Your task to perform on an android device: Turn off the flashlight Image 0: 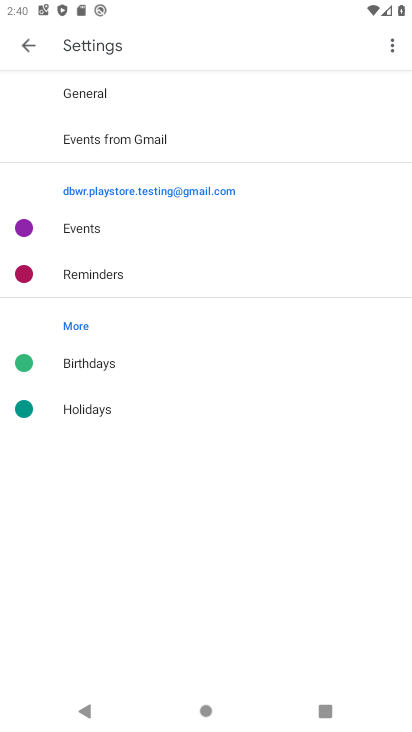
Step 0: press home button
Your task to perform on an android device: Turn off the flashlight Image 1: 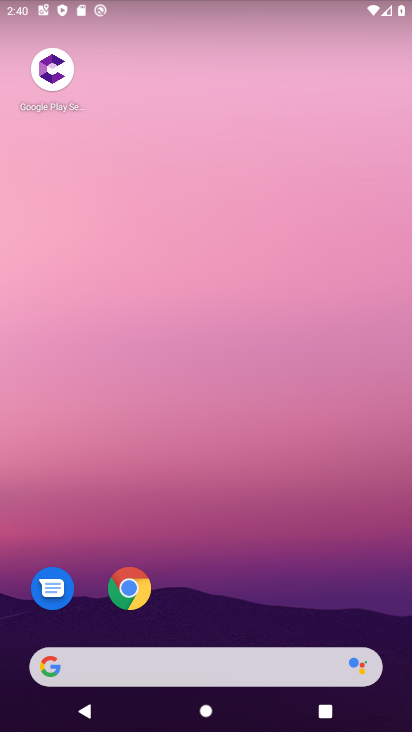
Step 1: drag from (234, 723) to (163, 6)
Your task to perform on an android device: Turn off the flashlight Image 2: 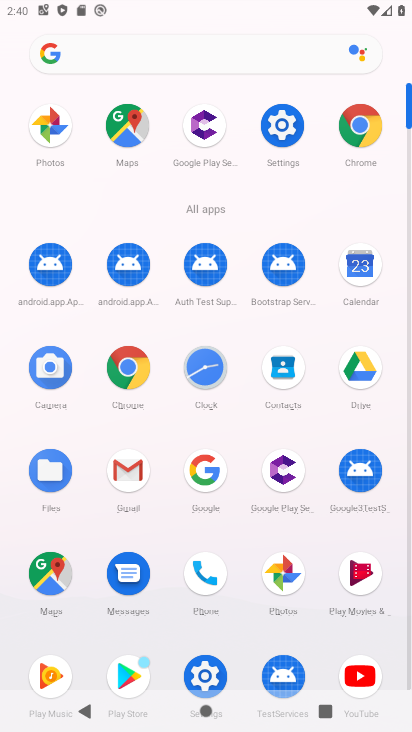
Step 2: click (288, 122)
Your task to perform on an android device: Turn off the flashlight Image 3: 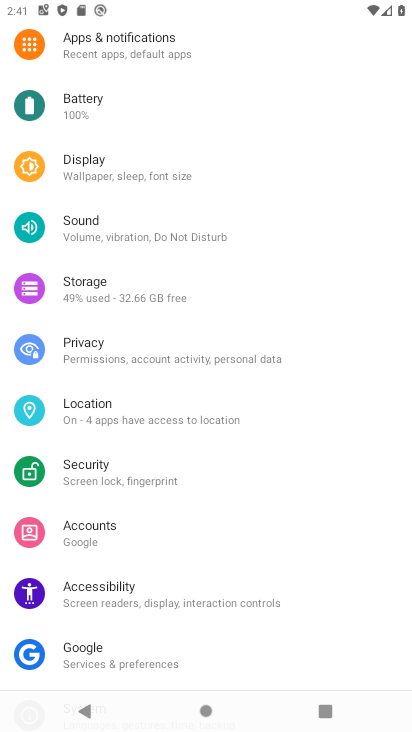
Step 3: task complete